Your task to perform on an android device: turn pop-ups on in chrome Image 0: 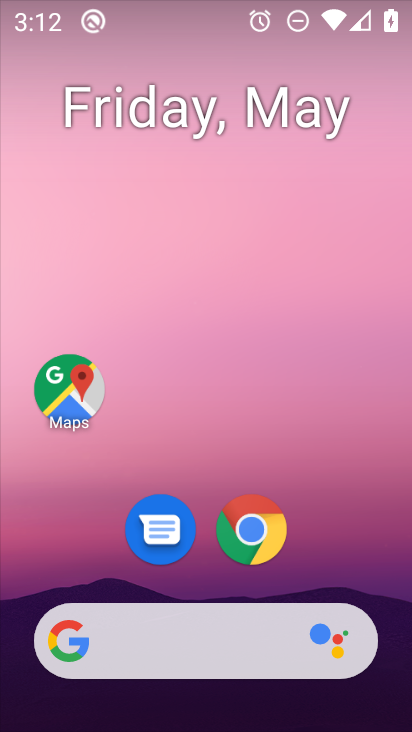
Step 0: click (261, 536)
Your task to perform on an android device: turn pop-ups on in chrome Image 1: 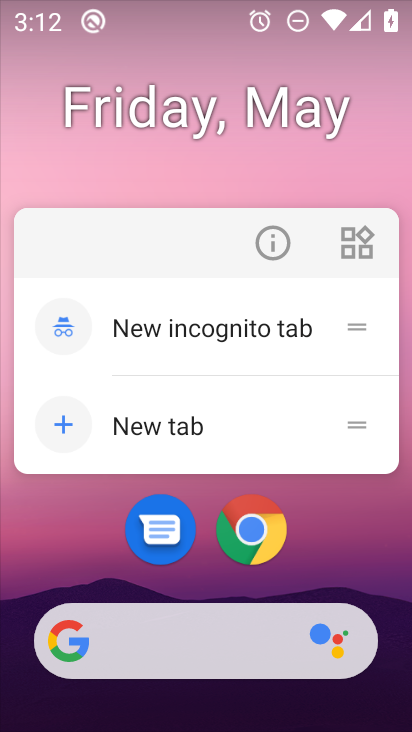
Step 1: click (261, 535)
Your task to perform on an android device: turn pop-ups on in chrome Image 2: 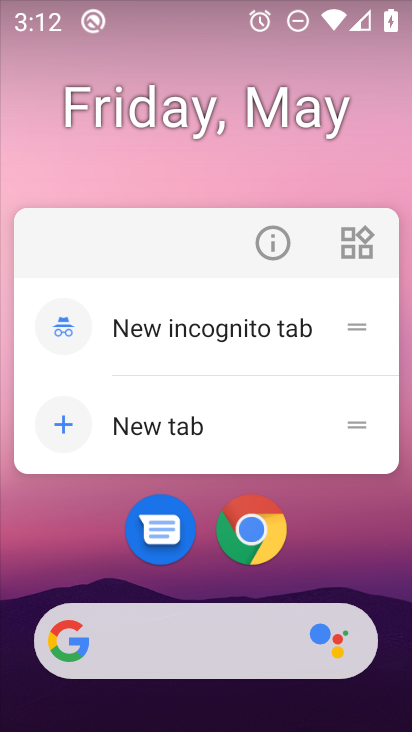
Step 2: press home button
Your task to perform on an android device: turn pop-ups on in chrome Image 3: 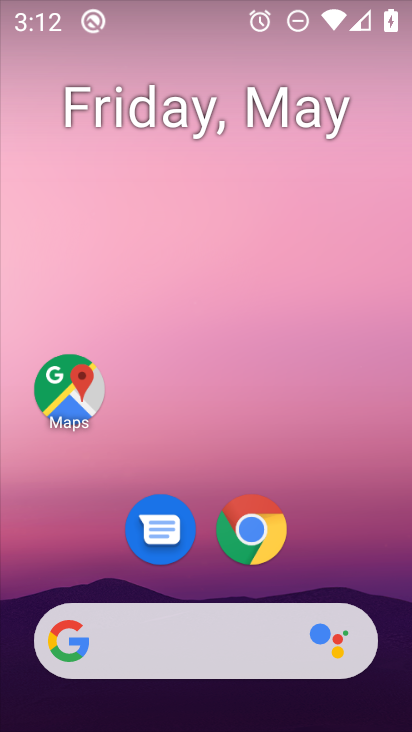
Step 3: click (253, 520)
Your task to perform on an android device: turn pop-ups on in chrome Image 4: 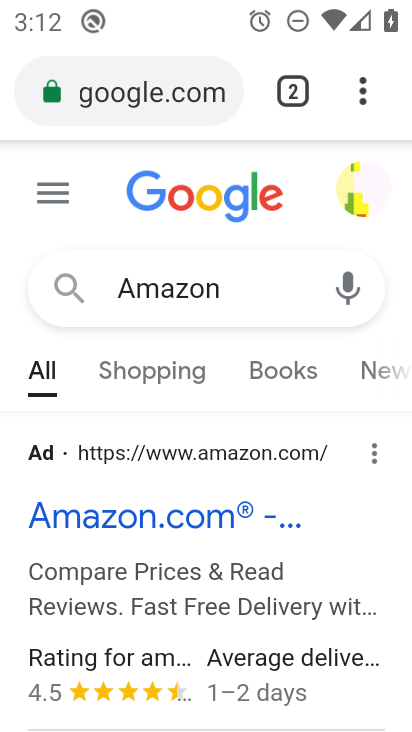
Step 4: click (367, 93)
Your task to perform on an android device: turn pop-ups on in chrome Image 5: 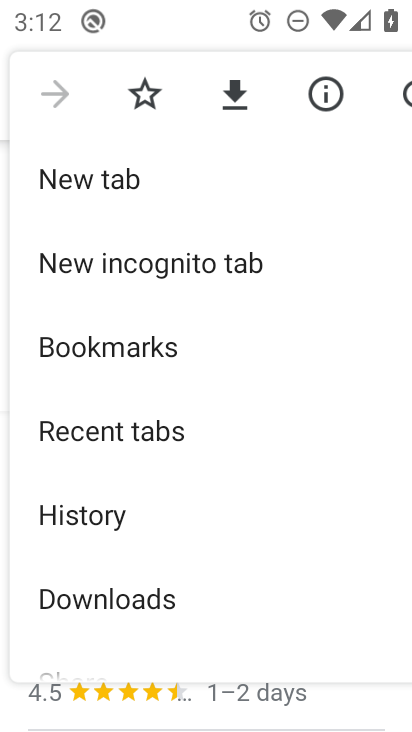
Step 5: drag from (315, 616) to (334, 303)
Your task to perform on an android device: turn pop-ups on in chrome Image 6: 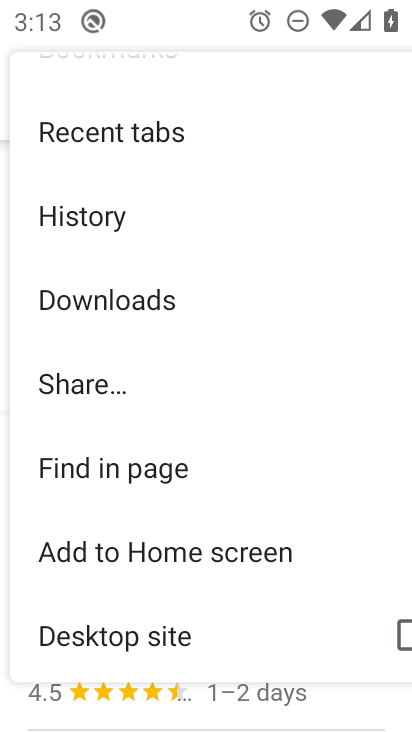
Step 6: drag from (296, 608) to (298, 417)
Your task to perform on an android device: turn pop-ups on in chrome Image 7: 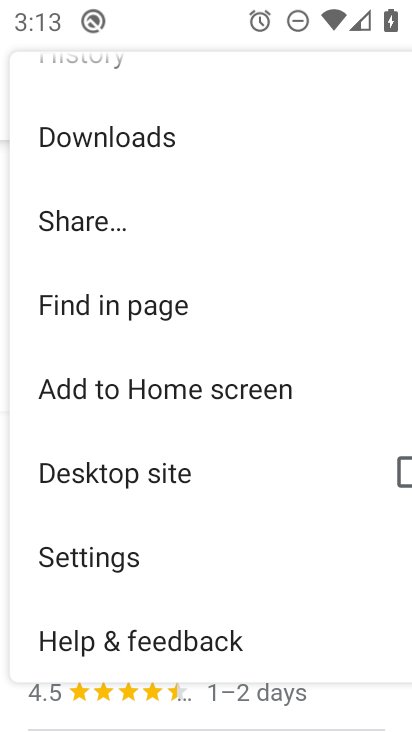
Step 7: click (66, 554)
Your task to perform on an android device: turn pop-ups on in chrome Image 8: 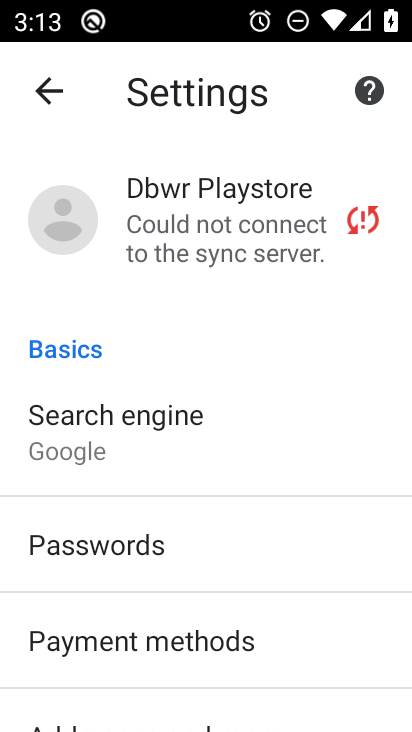
Step 8: drag from (297, 655) to (327, 377)
Your task to perform on an android device: turn pop-ups on in chrome Image 9: 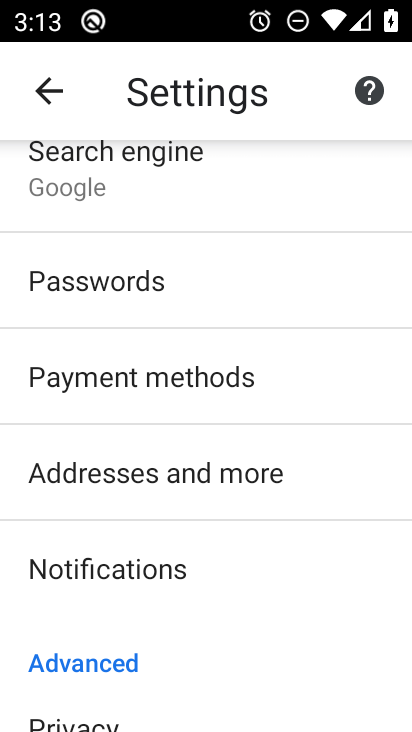
Step 9: drag from (286, 659) to (295, 453)
Your task to perform on an android device: turn pop-ups on in chrome Image 10: 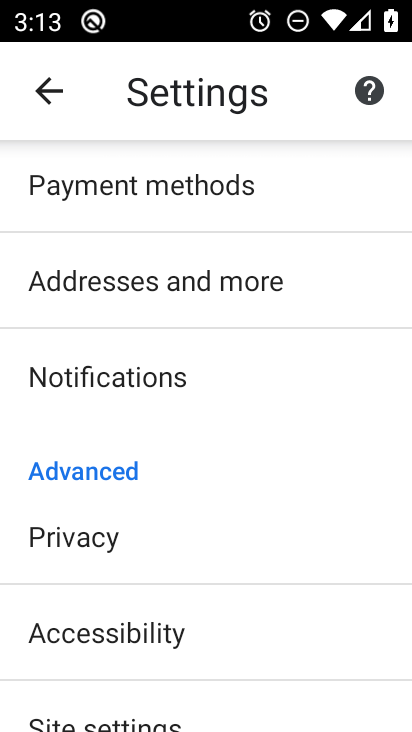
Step 10: drag from (260, 622) to (262, 462)
Your task to perform on an android device: turn pop-ups on in chrome Image 11: 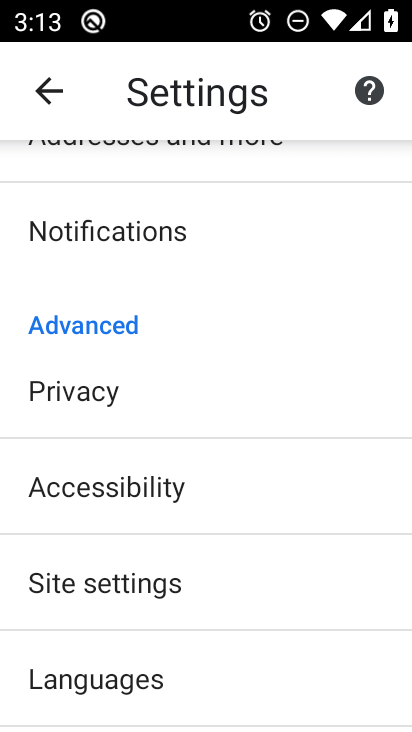
Step 11: click (86, 579)
Your task to perform on an android device: turn pop-ups on in chrome Image 12: 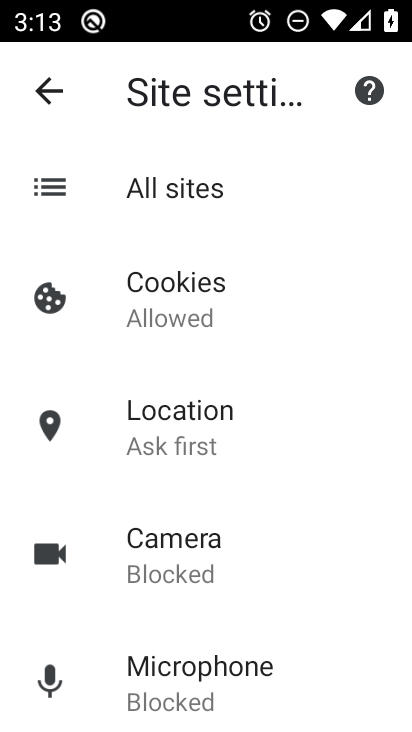
Step 12: drag from (345, 533) to (345, 362)
Your task to perform on an android device: turn pop-ups on in chrome Image 13: 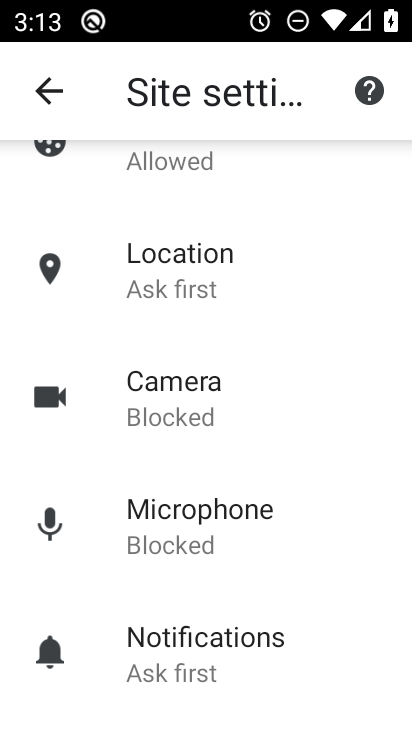
Step 13: drag from (334, 614) to (338, 353)
Your task to perform on an android device: turn pop-ups on in chrome Image 14: 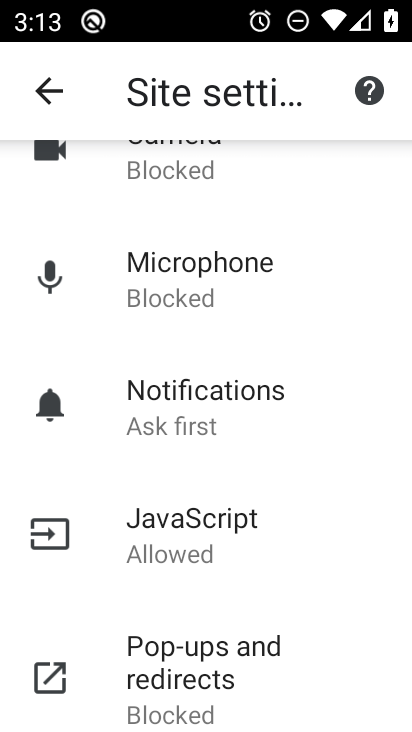
Step 14: click (186, 661)
Your task to perform on an android device: turn pop-ups on in chrome Image 15: 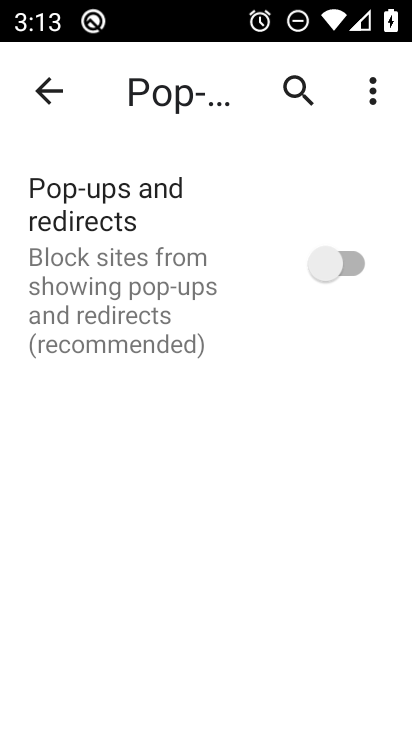
Step 15: click (361, 251)
Your task to perform on an android device: turn pop-ups on in chrome Image 16: 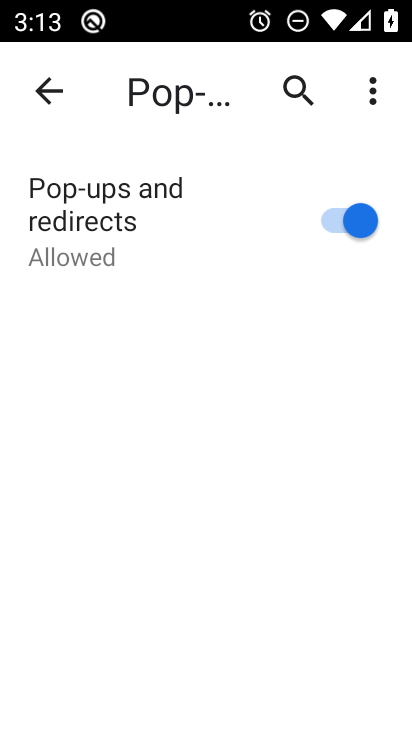
Step 16: task complete